Your task to perform on an android device: all mails in gmail Image 0: 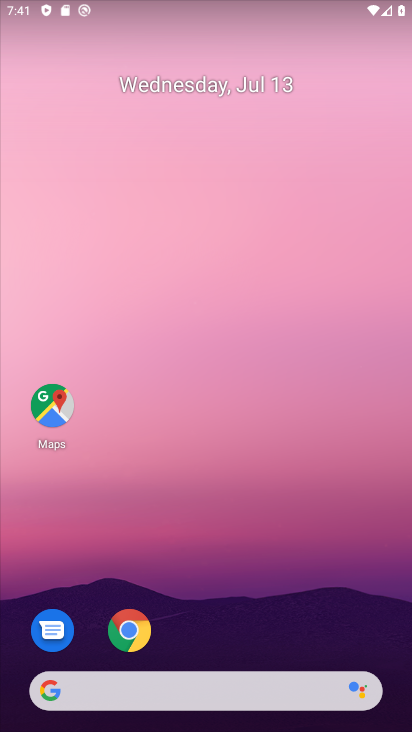
Step 0: drag from (188, 654) to (278, 62)
Your task to perform on an android device: all mails in gmail Image 1: 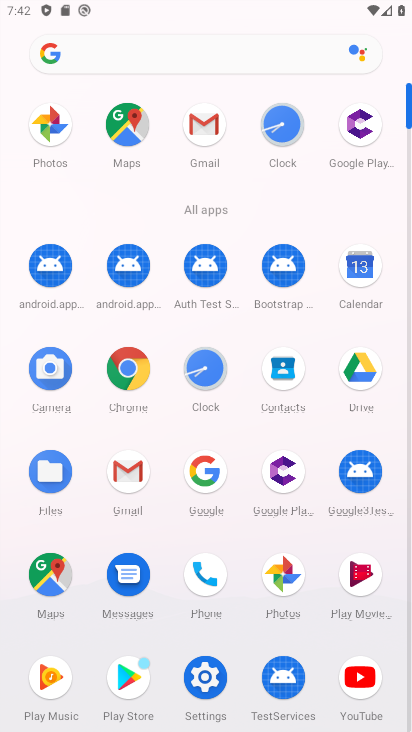
Step 1: click (131, 468)
Your task to perform on an android device: all mails in gmail Image 2: 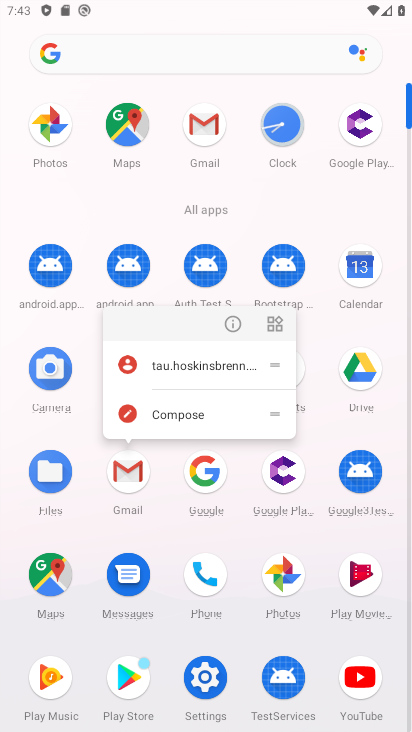
Step 2: click (238, 327)
Your task to perform on an android device: all mails in gmail Image 3: 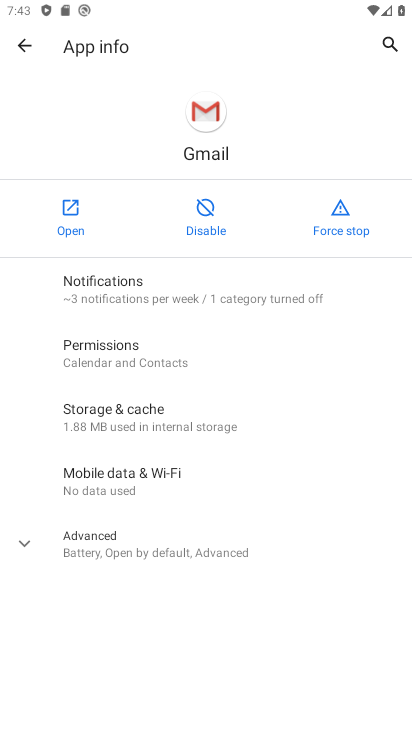
Step 3: click (73, 218)
Your task to perform on an android device: all mails in gmail Image 4: 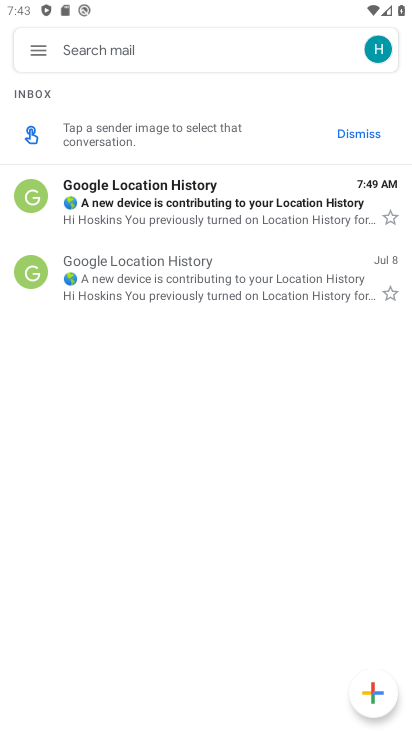
Step 4: click (31, 65)
Your task to perform on an android device: all mails in gmail Image 5: 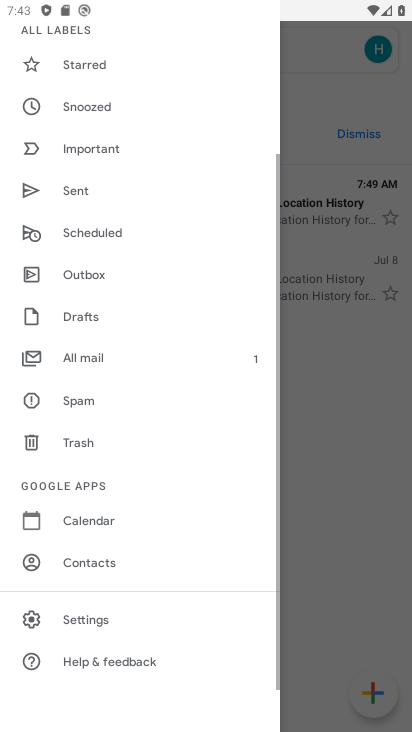
Step 5: drag from (118, 342) to (130, 146)
Your task to perform on an android device: all mails in gmail Image 6: 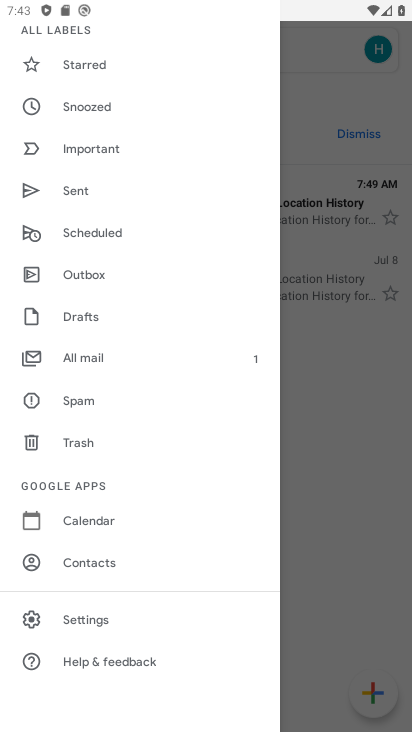
Step 6: click (72, 375)
Your task to perform on an android device: all mails in gmail Image 7: 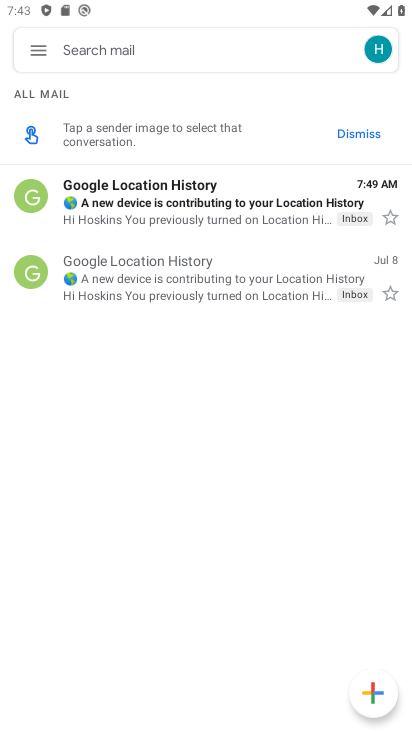
Step 7: drag from (113, 641) to (157, 298)
Your task to perform on an android device: all mails in gmail Image 8: 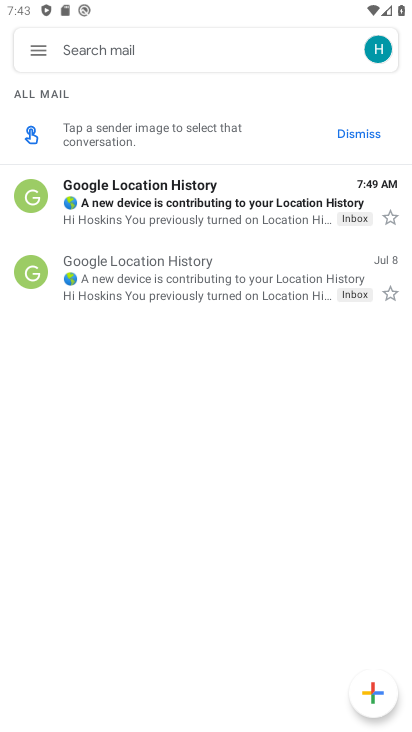
Step 8: drag from (222, 509) to (257, 273)
Your task to perform on an android device: all mails in gmail Image 9: 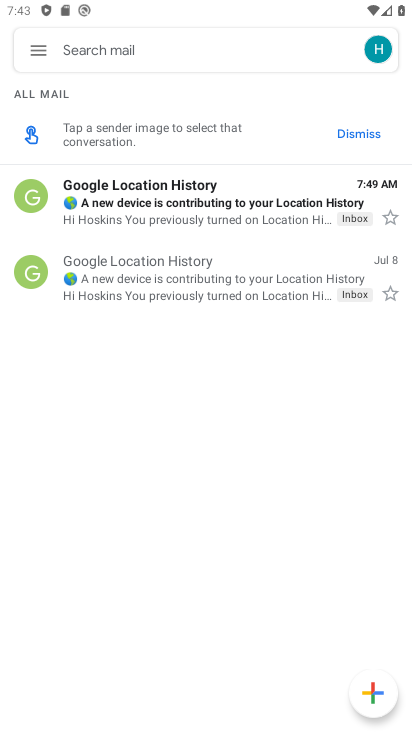
Step 9: click (40, 53)
Your task to perform on an android device: all mails in gmail Image 10: 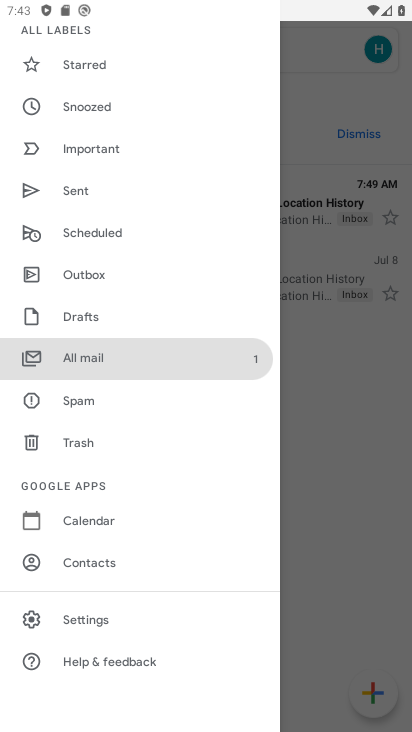
Step 10: task complete